Your task to perform on an android device: Open settings on Google Maps Image 0: 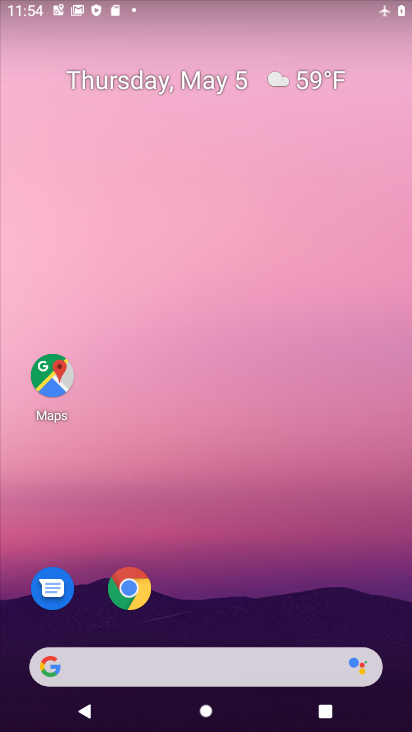
Step 0: drag from (219, 636) to (324, 193)
Your task to perform on an android device: Open settings on Google Maps Image 1: 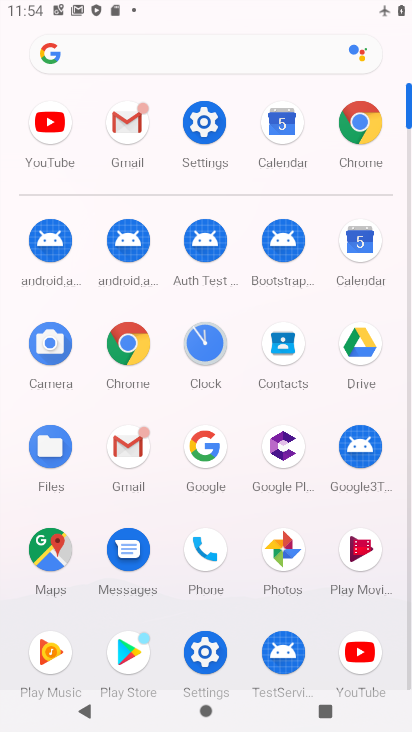
Step 1: click (57, 554)
Your task to perform on an android device: Open settings on Google Maps Image 2: 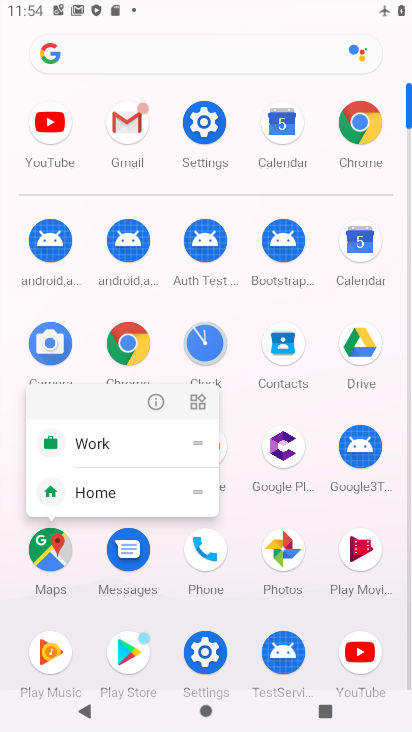
Step 2: click (53, 553)
Your task to perform on an android device: Open settings on Google Maps Image 3: 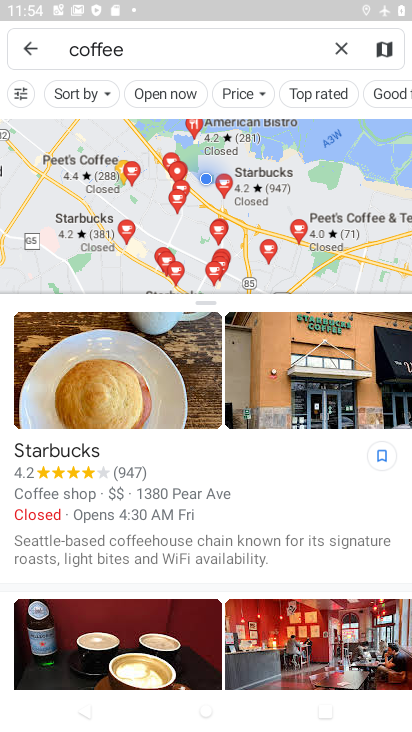
Step 3: task complete